Your task to perform on an android device: all mails in gmail Image 0: 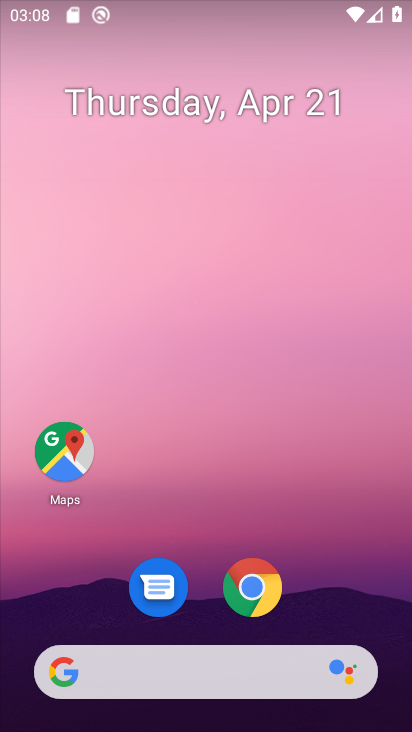
Step 0: drag from (348, 579) to (341, 122)
Your task to perform on an android device: all mails in gmail Image 1: 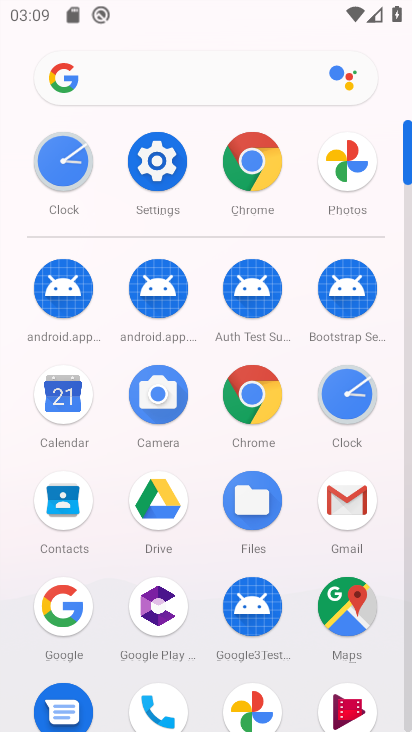
Step 1: click (352, 494)
Your task to perform on an android device: all mails in gmail Image 2: 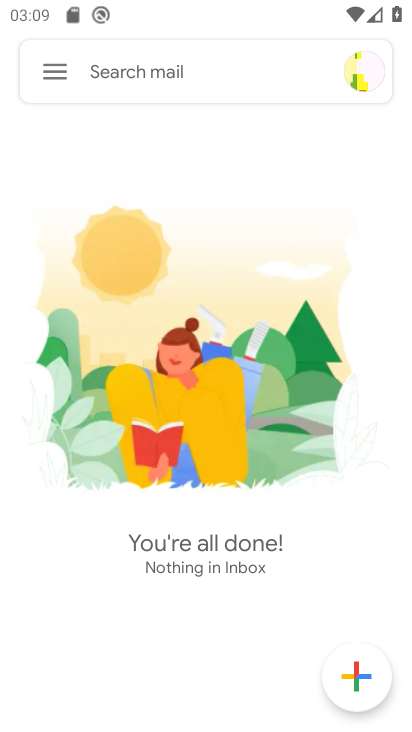
Step 2: click (62, 83)
Your task to perform on an android device: all mails in gmail Image 3: 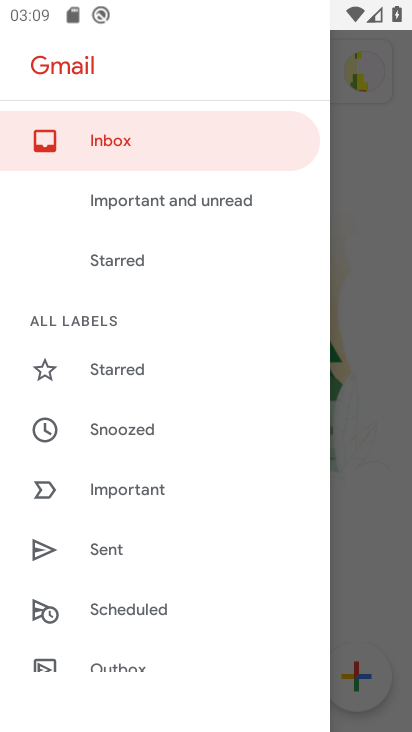
Step 3: drag from (246, 559) to (257, 410)
Your task to perform on an android device: all mails in gmail Image 4: 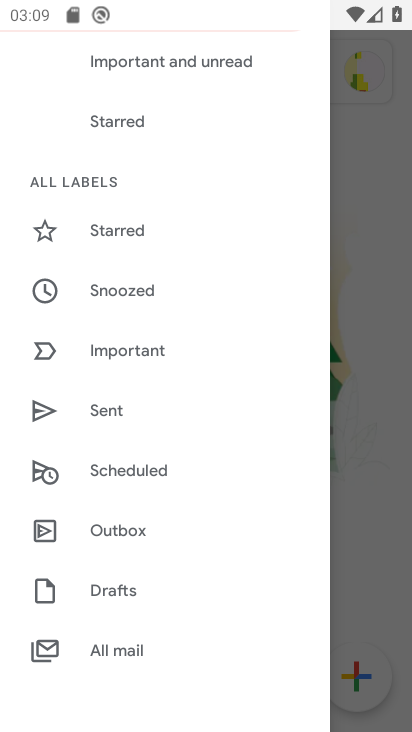
Step 4: drag from (266, 567) to (265, 436)
Your task to perform on an android device: all mails in gmail Image 5: 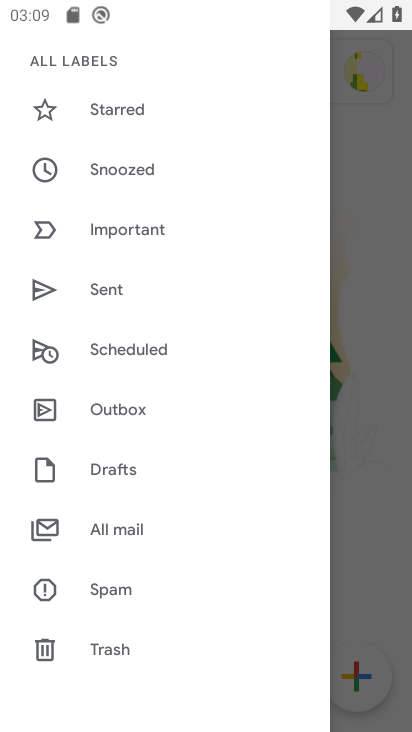
Step 5: drag from (264, 554) to (258, 427)
Your task to perform on an android device: all mails in gmail Image 6: 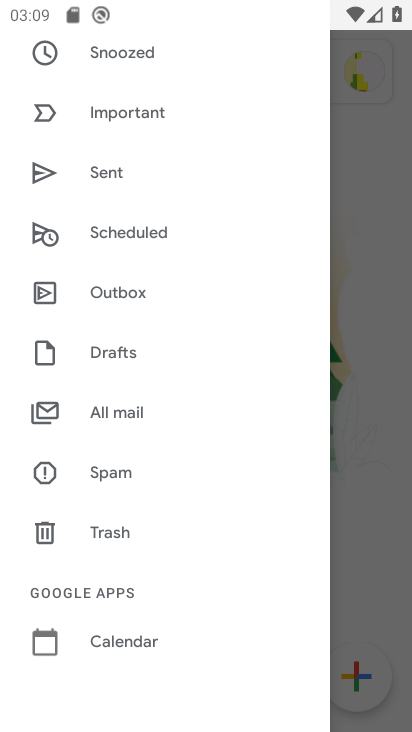
Step 6: drag from (250, 553) to (240, 469)
Your task to perform on an android device: all mails in gmail Image 7: 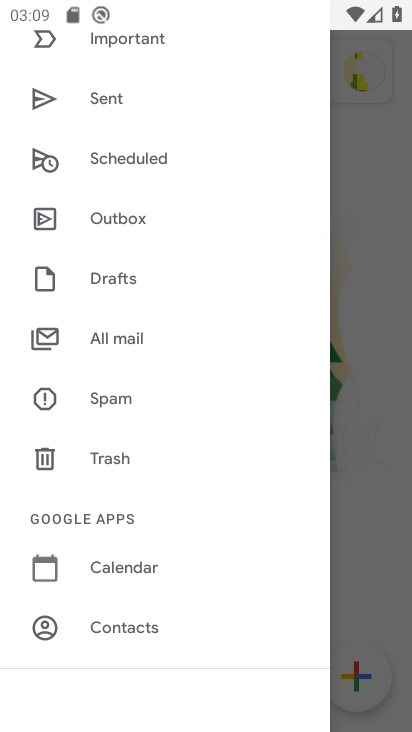
Step 7: click (126, 331)
Your task to perform on an android device: all mails in gmail Image 8: 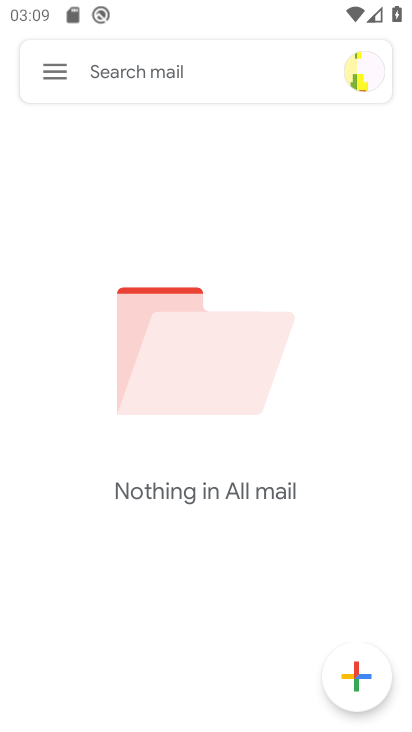
Step 8: task complete